Your task to perform on an android device: What's the weather going to be tomorrow? Image 0: 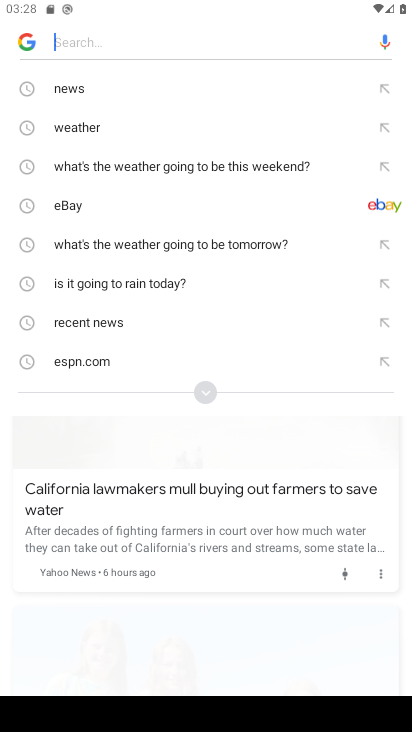
Step 0: press home button
Your task to perform on an android device: What's the weather going to be tomorrow? Image 1: 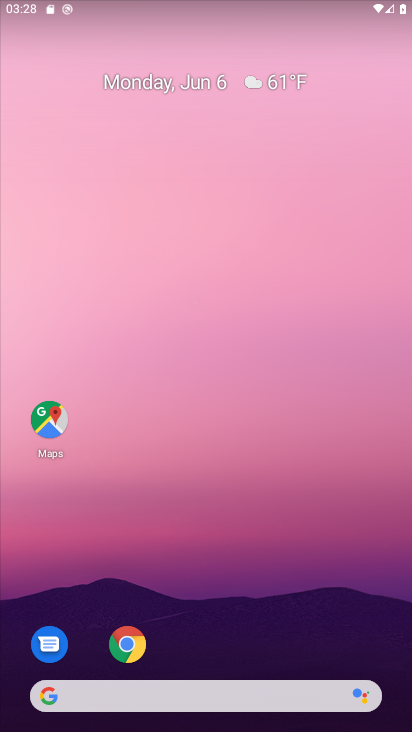
Step 1: click (271, 81)
Your task to perform on an android device: What's the weather going to be tomorrow? Image 2: 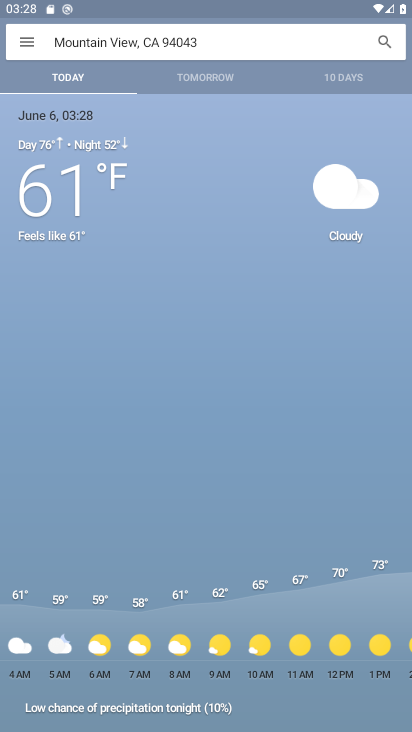
Step 2: click (206, 85)
Your task to perform on an android device: What's the weather going to be tomorrow? Image 3: 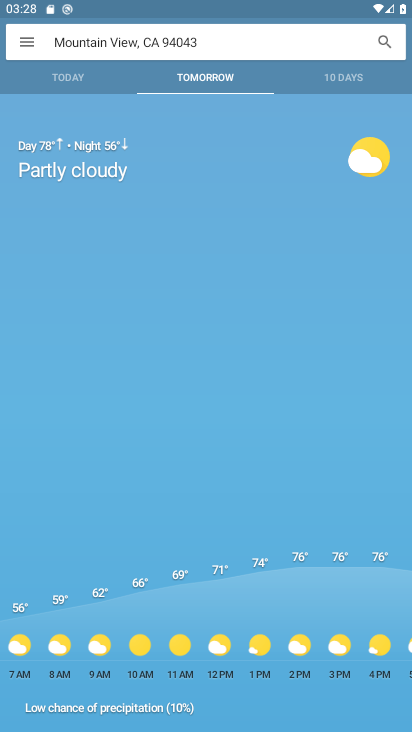
Step 3: click (223, 83)
Your task to perform on an android device: What's the weather going to be tomorrow? Image 4: 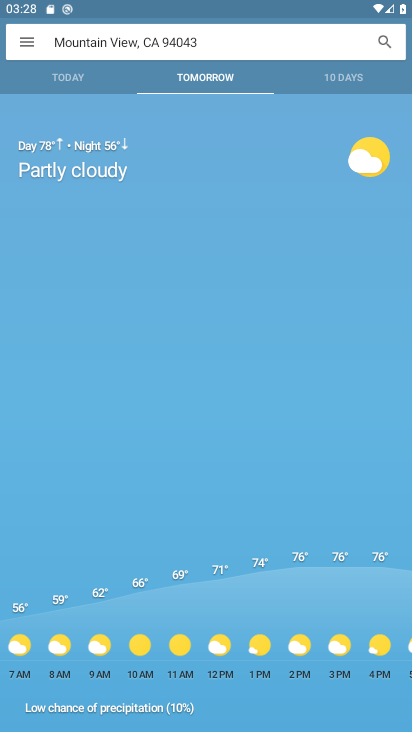
Step 4: task complete